Your task to perform on an android device: Add "razer huntsman" to the cart on newegg Image 0: 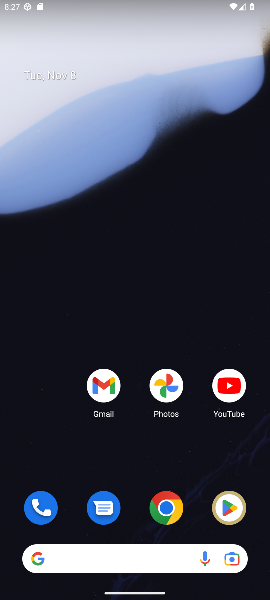
Step 0: click (167, 511)
Your task to perform on an android device: Add "razer huntsman" to the cart on newegg Image 1: 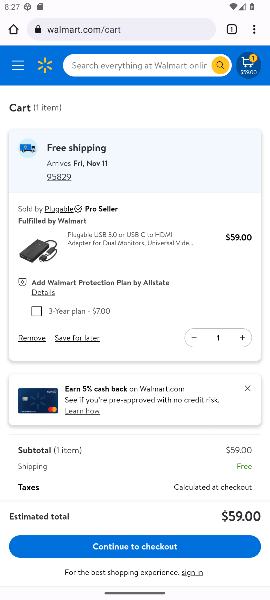
Step 1: click (109, 30)
Your task to perform on an android device: Add "razer huntsman" to the cart on newegg Image 2: 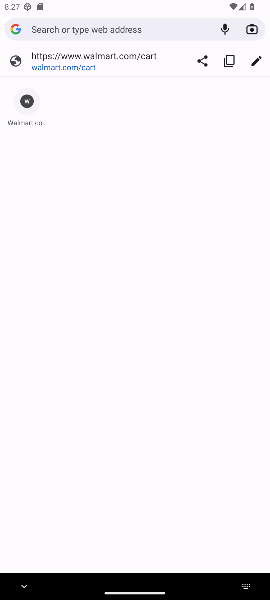
Step 2: type "newegg"
Your task to perform on an android device: Add "razer huntsman" to the cart on newegg Image 3: 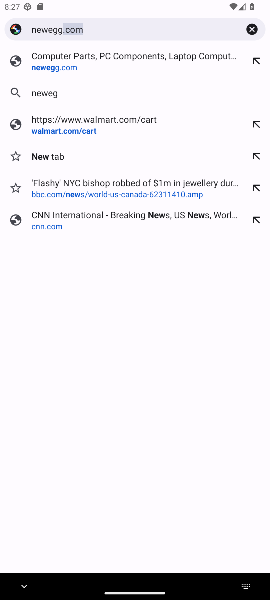
Step 3: type ""
Your task to perform on an android device: Add "razer huntsman" to the cart on newegg Image 4: 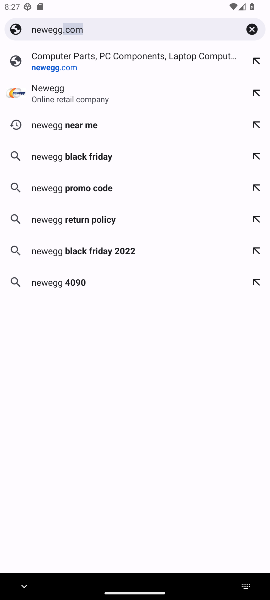
Step 4: click (35, 92)
Your task to perform on an android device: Add "razer huntsman" to the cart on newegg Image 5: 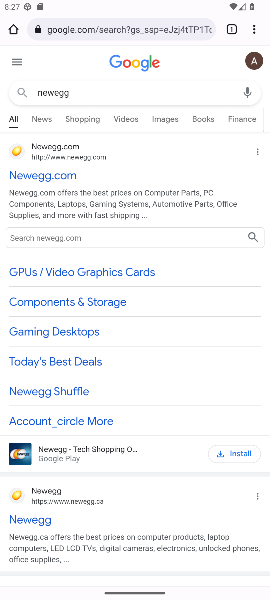
Step 5: click (48, 176)
Your task to perform on an android device: Add "razer huntsman" to the cart on newegg Image 6: 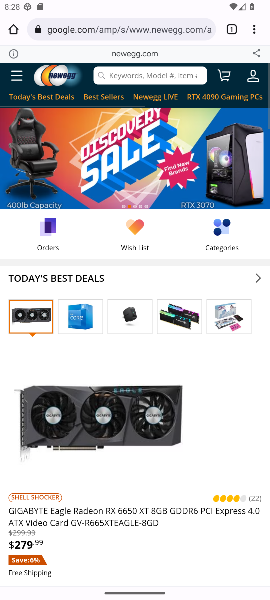
Step 6: drag from (72, 463) to (137, 144)
Your task to perform on an android device: Add "razer huntsman" to the cart on newegg Image 7: 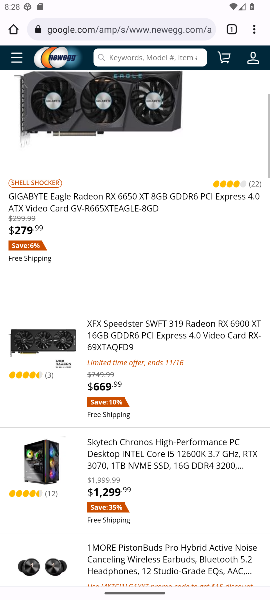
Step 7: click (121, 342)
Your task to perform on an android device: Add "razer huntsman" to the cart on newegg Image 8: 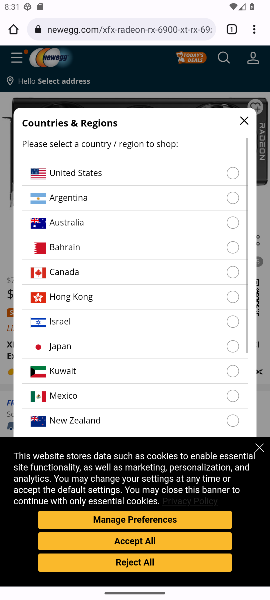
Step 8: click (83, 176)
Your task to perform on an android device: Add "razer huntsman" to the cart on newegg Image 9: 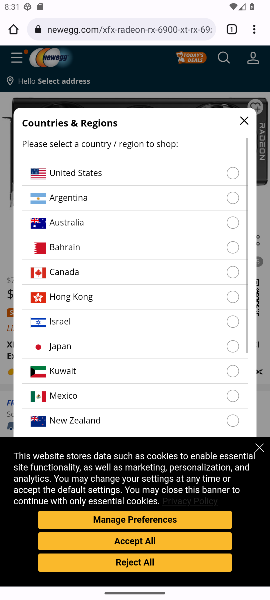
Step 9: click (242, 121)
Your task to perform on an android device: Add "razer huntsman" to the cart on newegg Image 10: 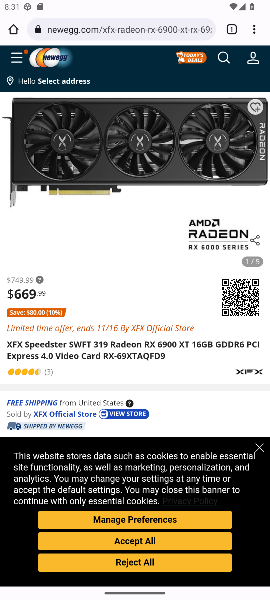
Step 10: click (260, 449)
Your task to perform on an android device: Add "razer huntsman" to the cart on newegg Image 11: 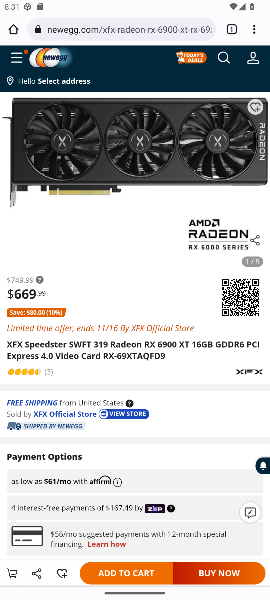
Step 11: click (113, 574)
Your task to perform on an android device: Add "razer huntsman" to the cart on newegg Image 12: 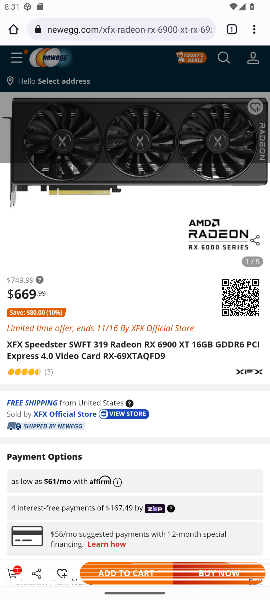
Step 12: click (119, 575)
Your task to perform on an android device: Add "razer huntsman" to the cart on newegg Image 13: 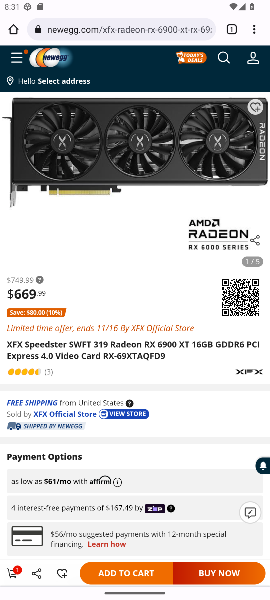
Step 13: click (119, 573)
Your task to perform on an android device: Add "razer huntsman" to the cart on newegg Image 14: 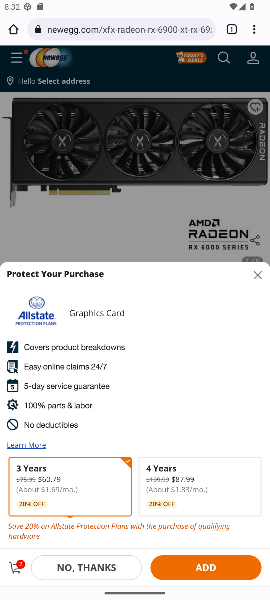
Step 14: click (257, 273)
Your task to perform on an android device: Add "razer huntsman" to the cart on newegg Image 15: 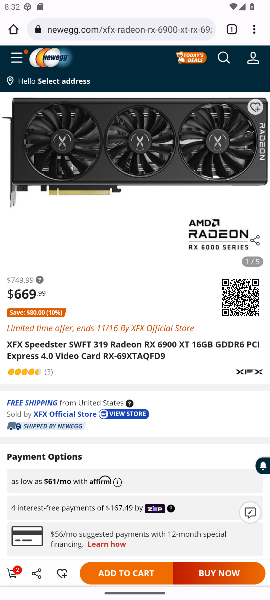
Step 15: click (256, 490)
Your task to perform on an android device: Add "razer huntsman" to the cart on newegg Image 16: 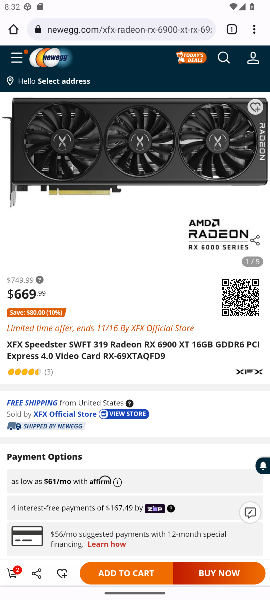
Step 16: task complete